Your task to perform on an android device: Open Chrome and go to the settings page Image 0: 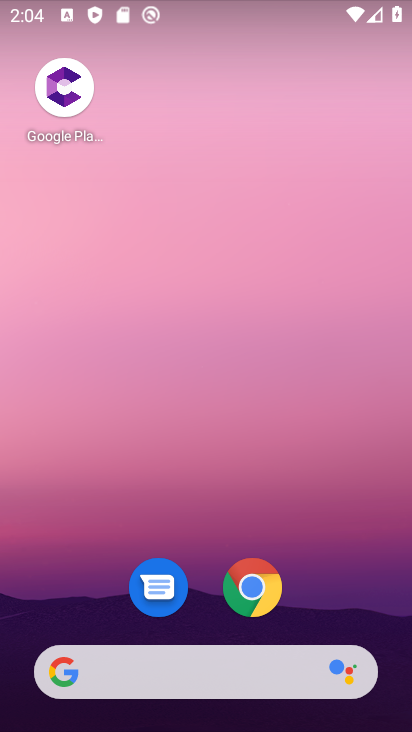
Step 0: click (259, 588)
Your task to perform on an android device: Open Chrome and go to the settings page Image 1: 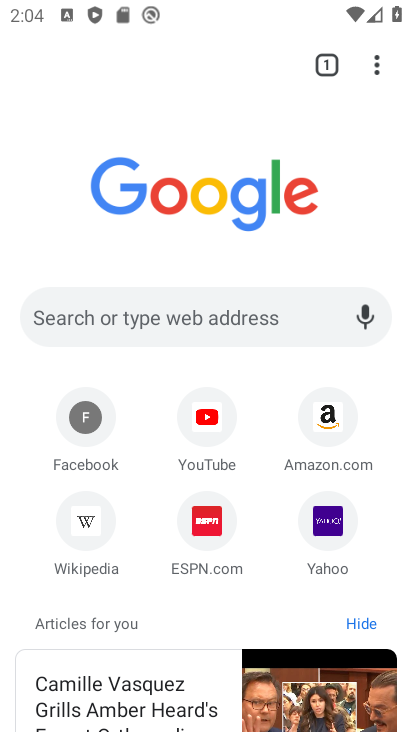
Step 1: click (381, 62)
Your task to perform on an android device: Open Chrome and go to the settings page Image 2: 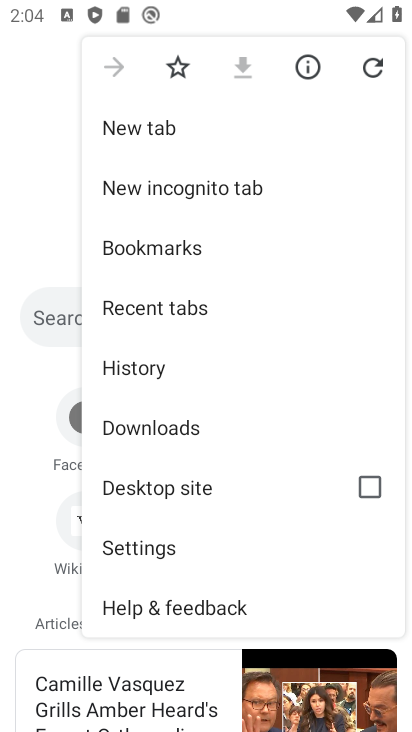
Step 2: click (164, 548)
Your task to perform on an android device: Open Chrome and go to the settings page Image 3: 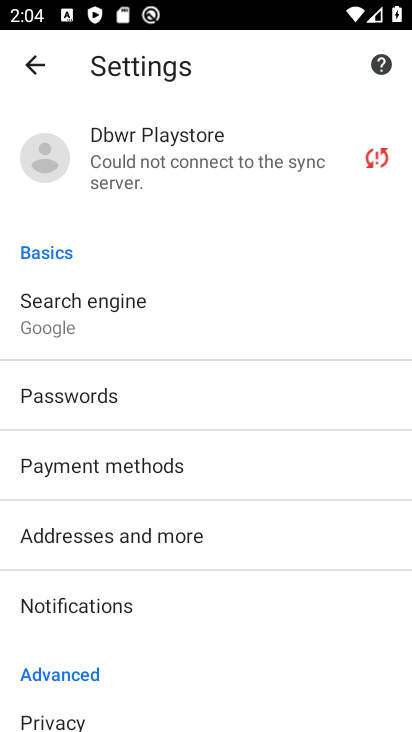
Step 3: task complete